Your task to perform on an android device: Open settings Image 0: 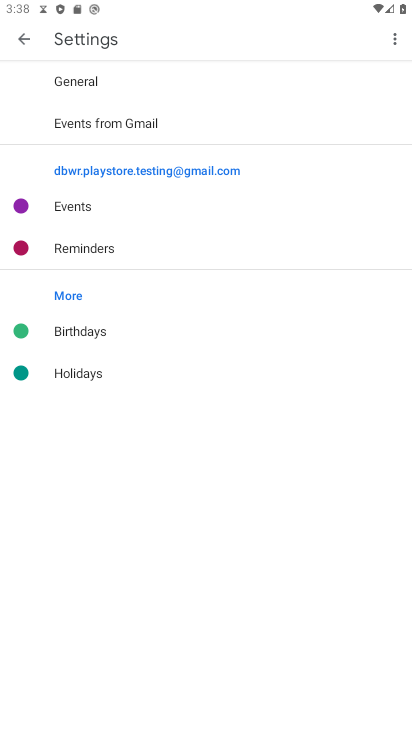
Step 0: press home button
Your task to perform on an android device: Open settings Image 1: 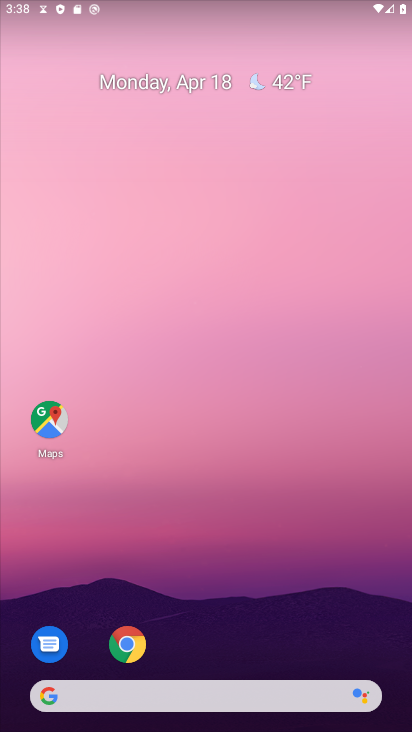
Step 1: drag from (264, 612) to (235, 116)
Your task to perform on an android device: Open settings Image 2: 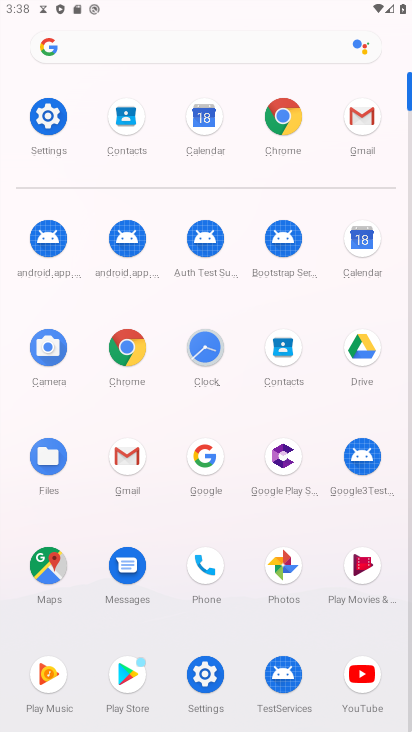
Step 2: click (212, 679)
Your task to perform on an android device: Open settings Image 3: 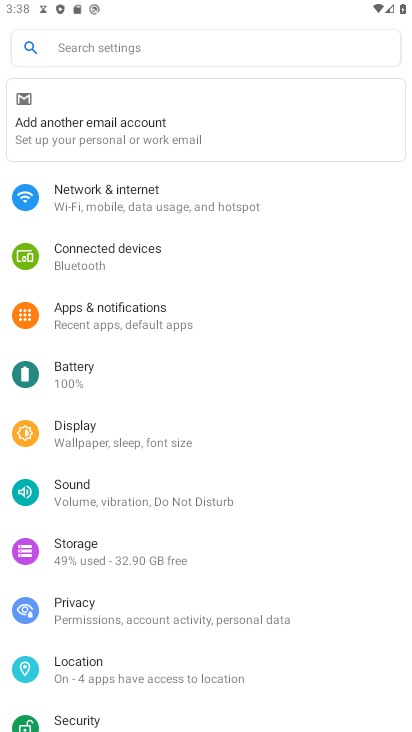
Step 3: task complete